Your task to perform on an android device: Open battery settings Image 0: 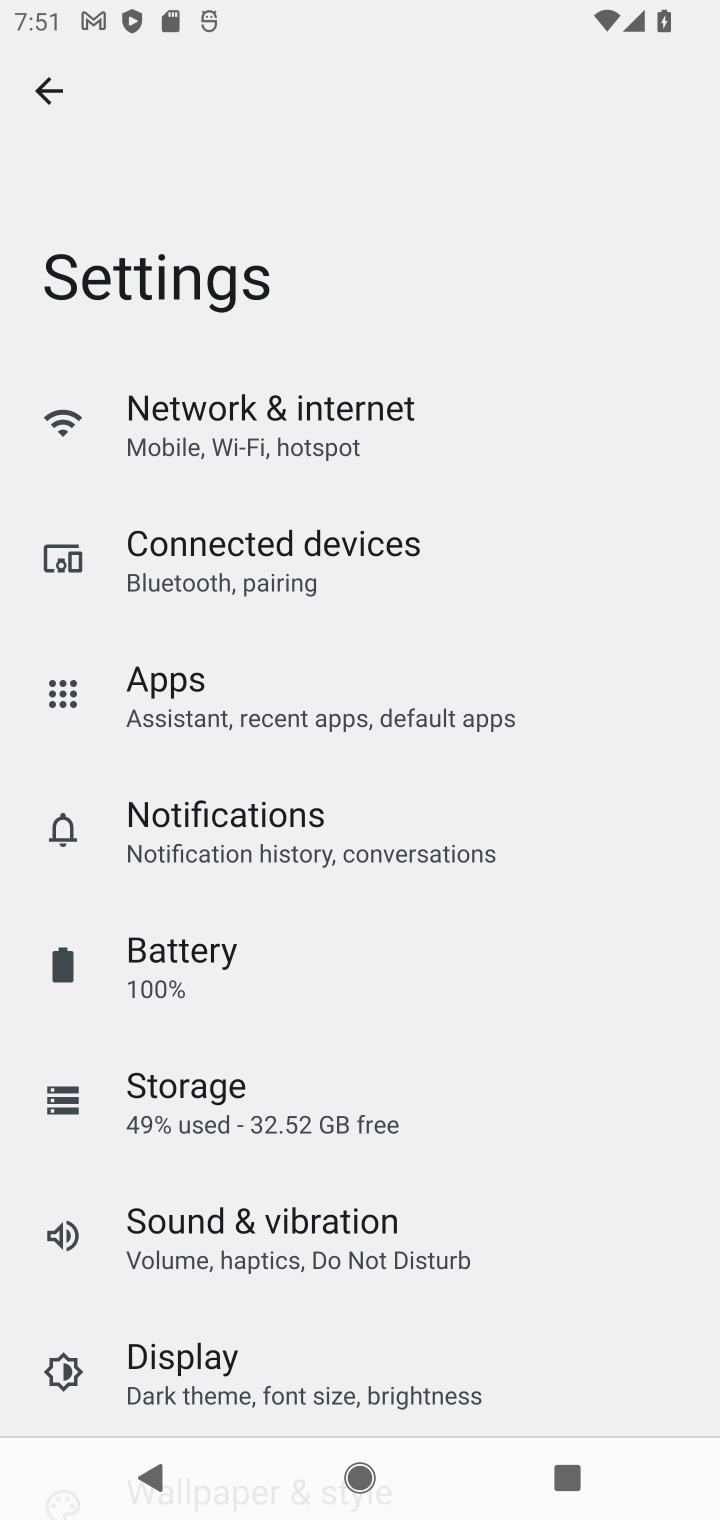
Step 0: press home button
Your task to perform on an android device: Open battery settings Image 1: 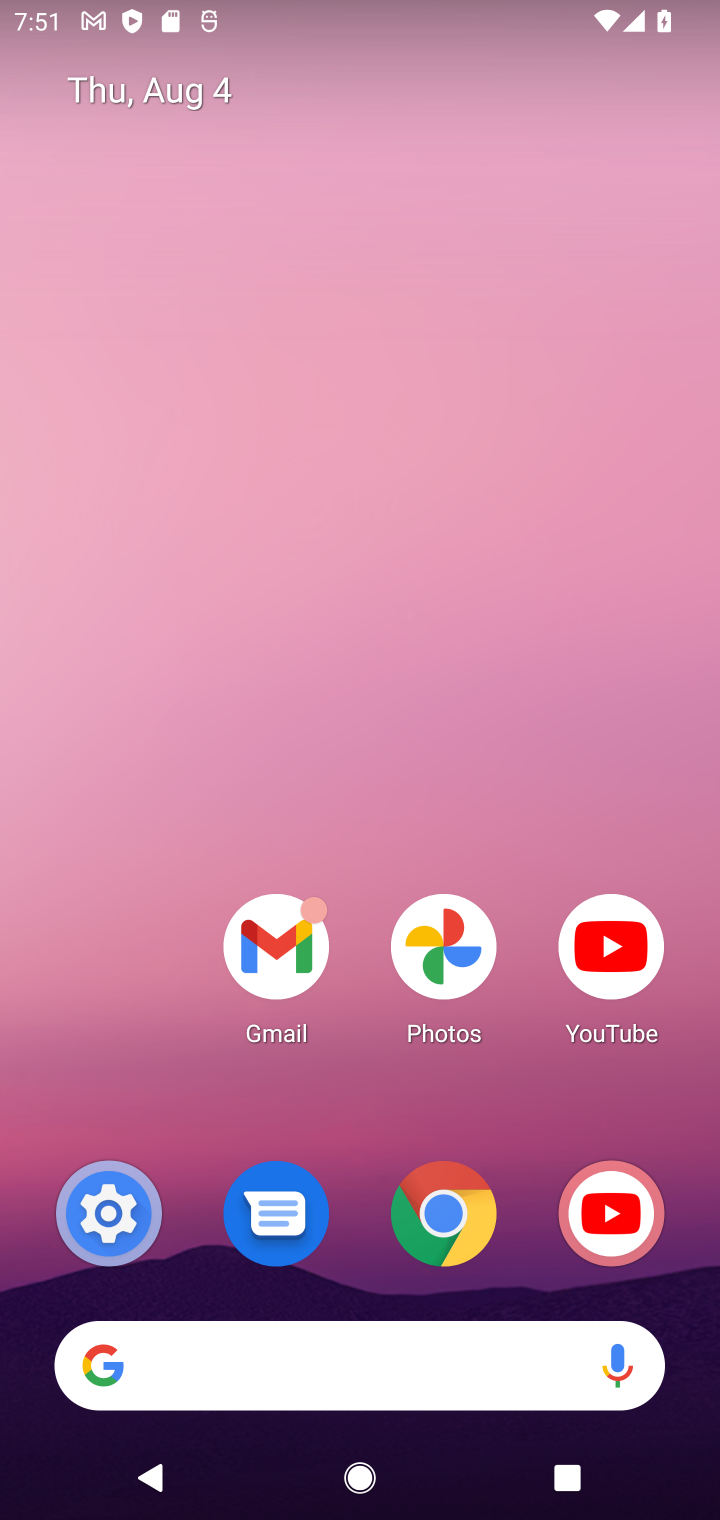
Step 1: click (78, 1251)
Your task to perform on an android device: Open battery settings Image 2: 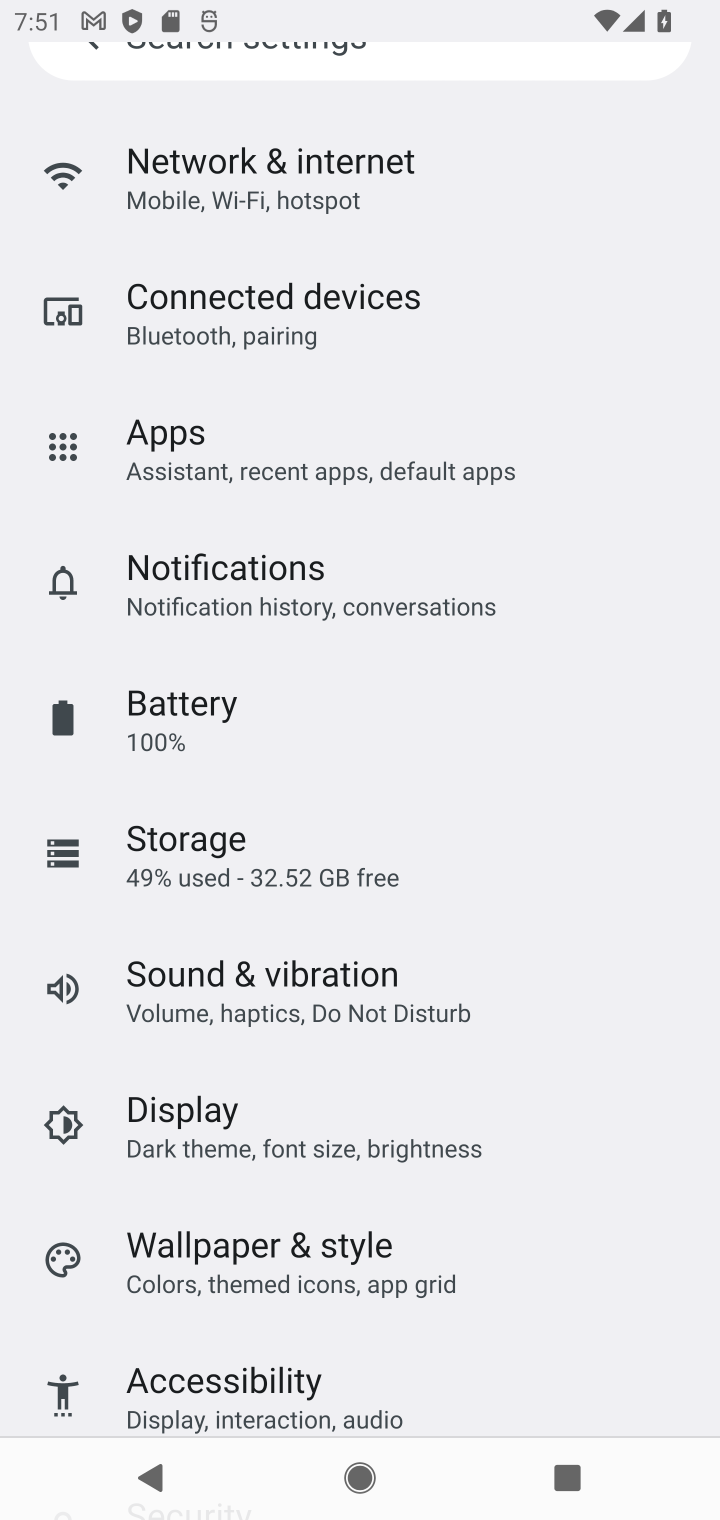
Step 2: click (285, 699)
Your task to perform on an android device: Open battery settings Image 3: 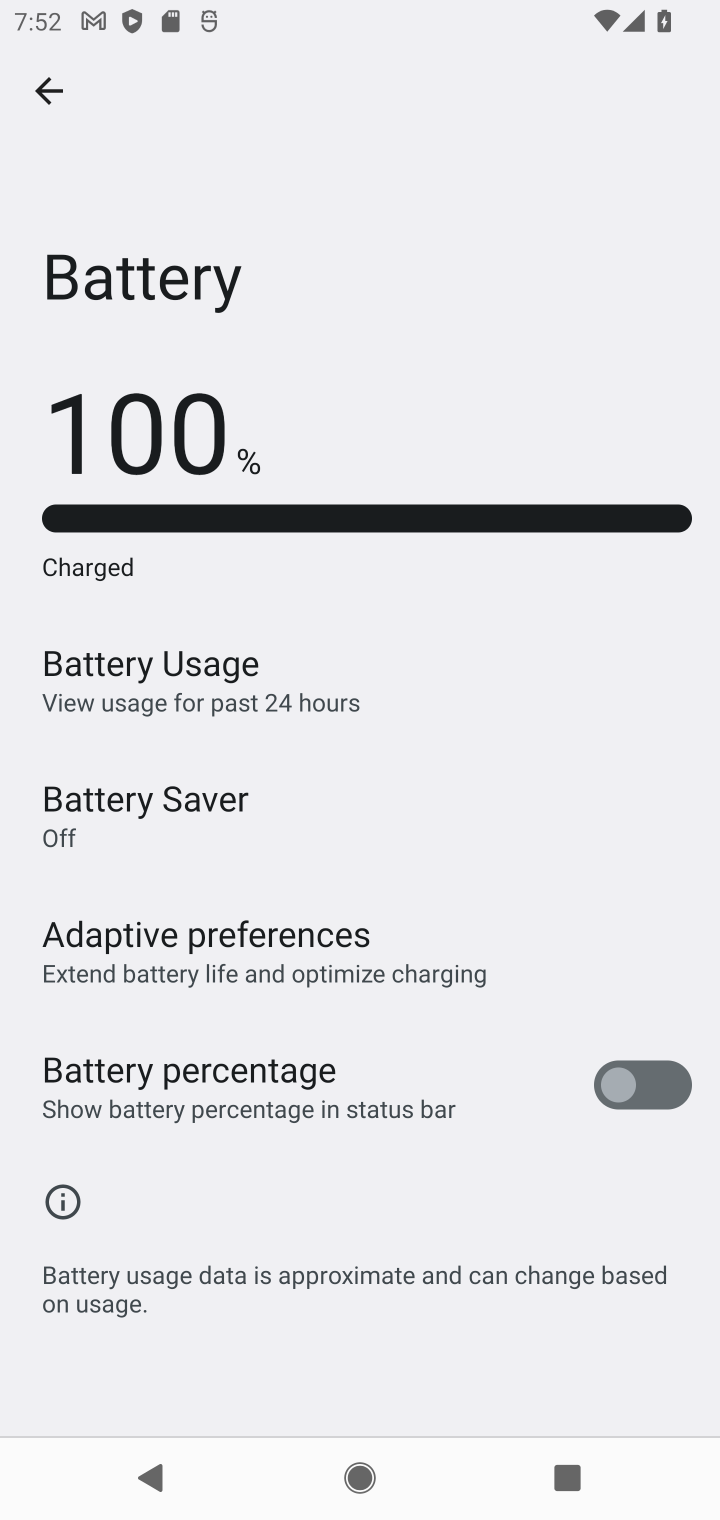
Step 3: task complete